Your task to perform on an android device: Open settings on Google Maps Image 0: 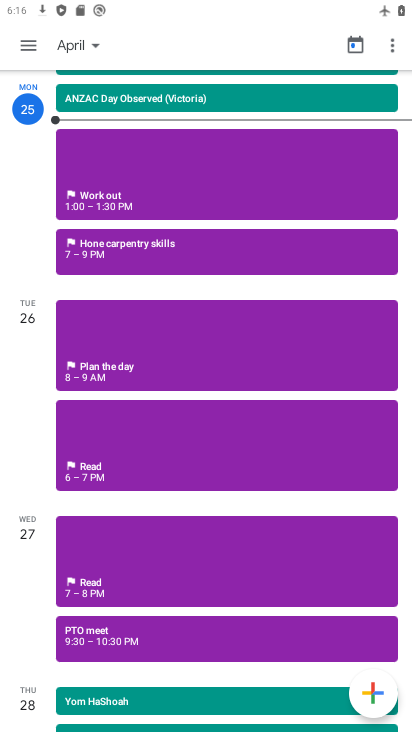
Step 0: press home button
Your task to perform on an android device: Open settings on Google Maps Image 1: 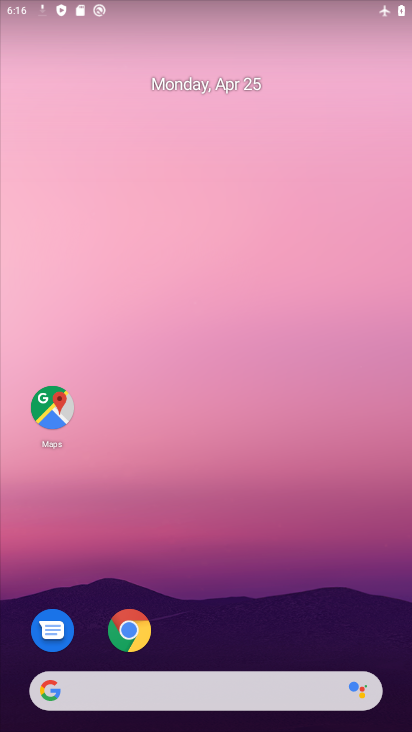
Step 1: click (49, 399)
Your task to perform on an android device: Open settings on Google Maps Image 2: 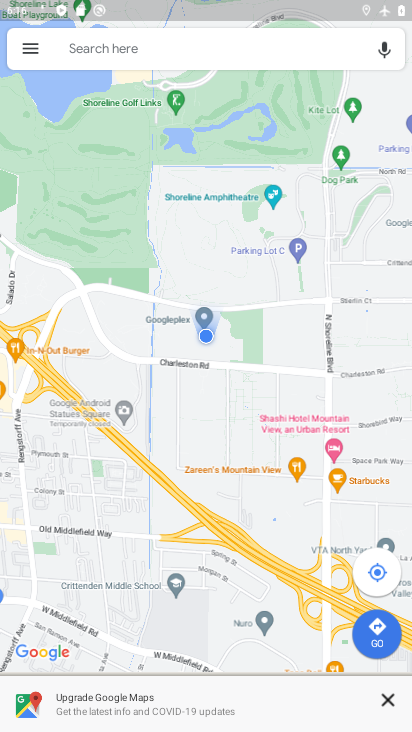
Step 2: click (29, 49)
Your task to perform on an android device: Open settings on Google Maps Image 3: 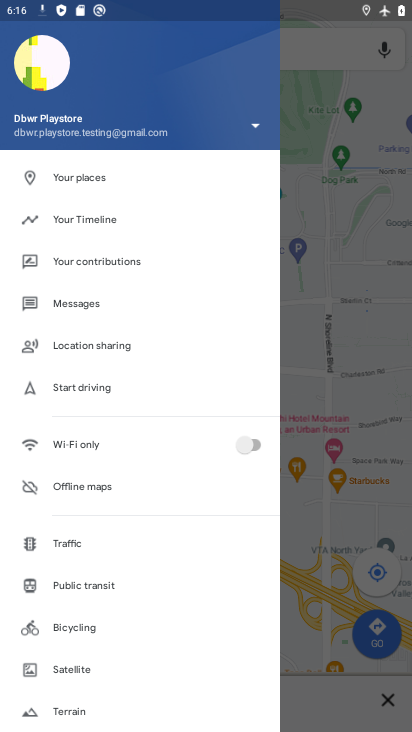
Step 3: drag from (122, 682) to (95, 284)
Your task to perform on an android device: Open settings on Google Maps Image 4: 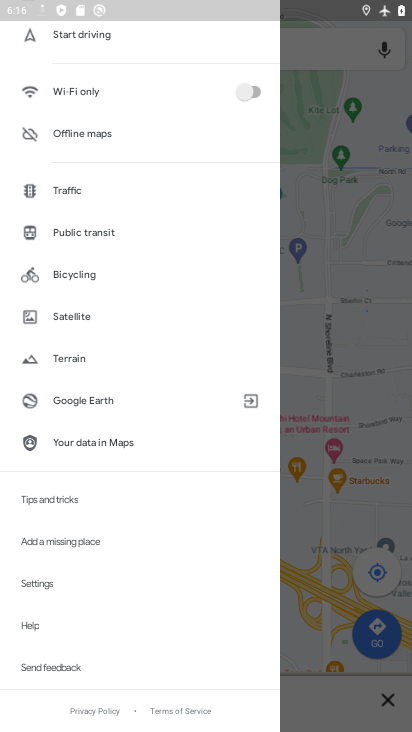
Step 4: click (43, 578)
Your task to perform on an android device: Open settings on Google Maps Image 5: 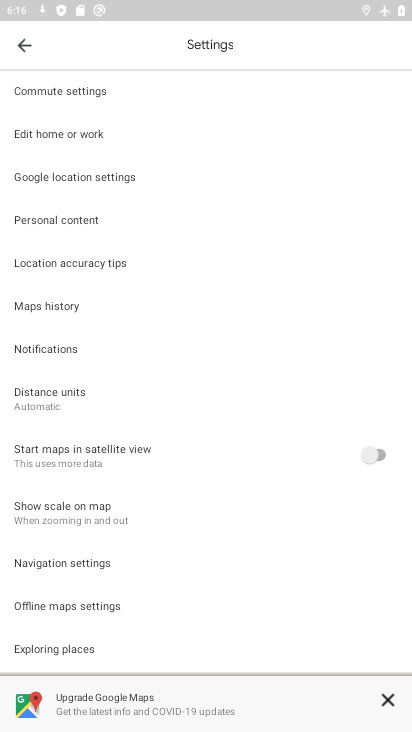
Step 5: task complete